Your task to perform on an android device: open a new tab in the chrome app Image 0: 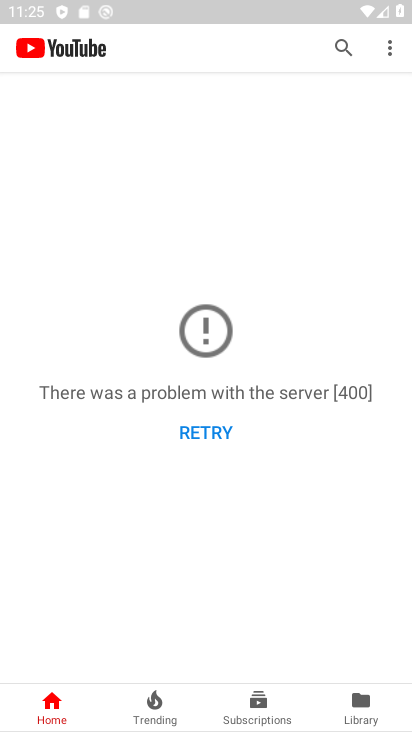
Step 0: press home button
Your task to perform on an android device: open a new tab in the chrome app Image 1: 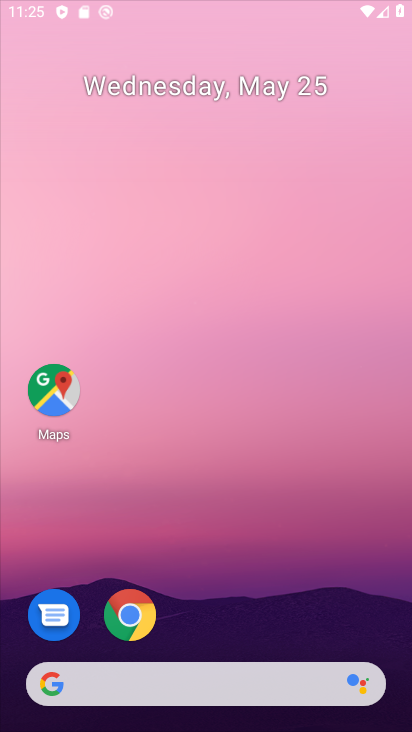
Step 1: drag from (329, 603) to (276, 46)
Your task to perform on an android device: open a new tab in the chrome app Image 2: 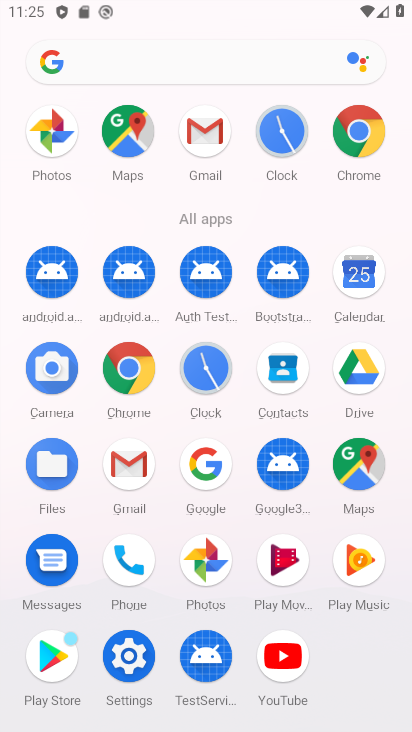
Step 2: click (350, 153)
Your task to perform on an android device: open a new tab in the chrome app Image 3: 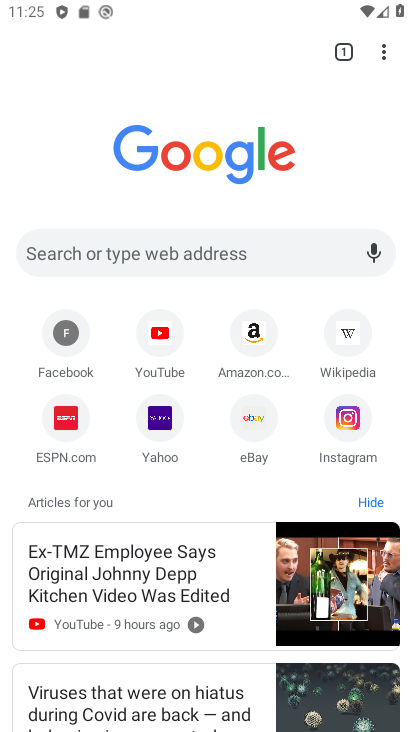
Step 3: click (383, 52)
Your task to perform on an android device: open a new tab in the chrome app Image 4: 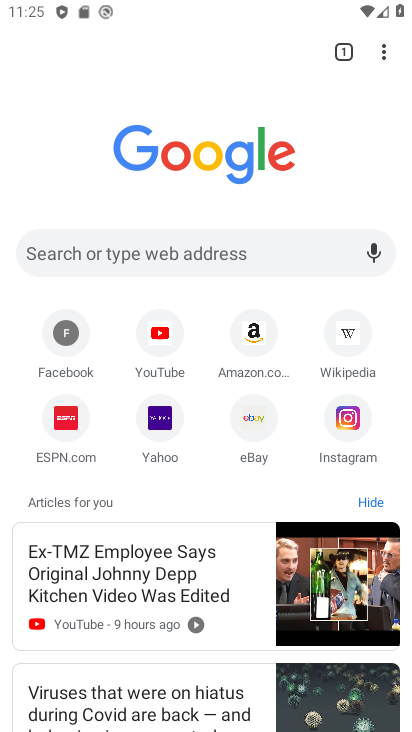
Step 4: click (384, 33)
Your task to perform on an android device: open a new tab in the chrome app Image 5: 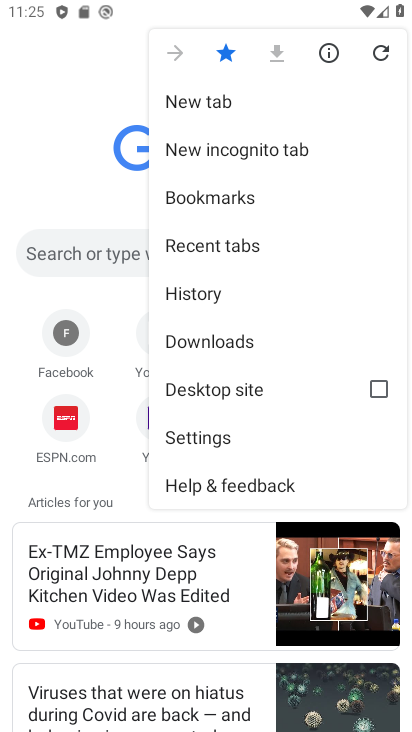
Step 5: click (304, 104)
Your task to perform on an android device: open a new tab in the chrome app Image 6: 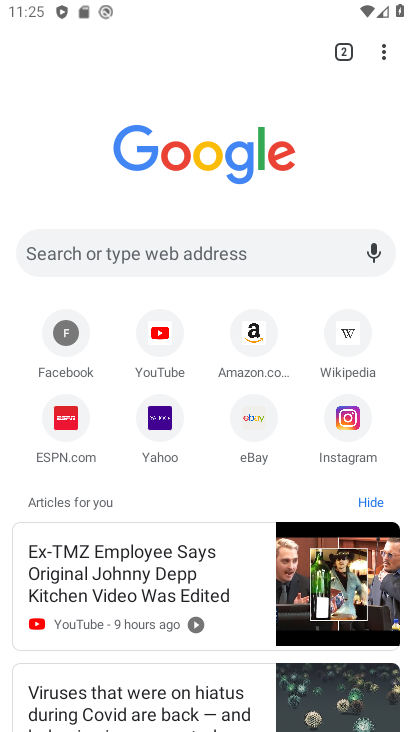
Step 6: task complete